Your task to perform on an android device: see tabs open on other devices in the chrome app Image 0: 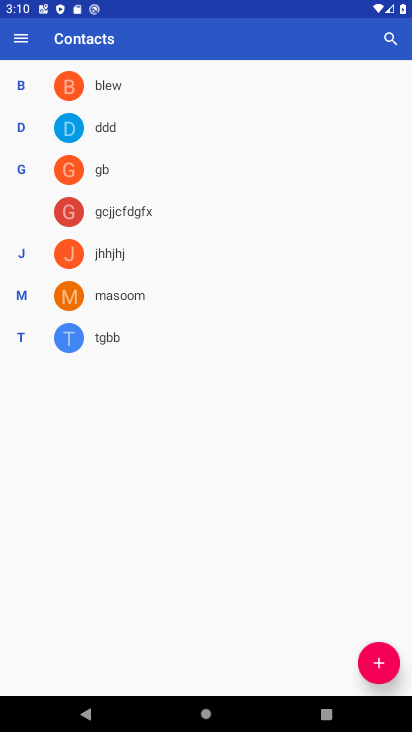
Step 0: press home button
Your task to perform on an android device: see tabs open on other devices in the chrome app Image 1: 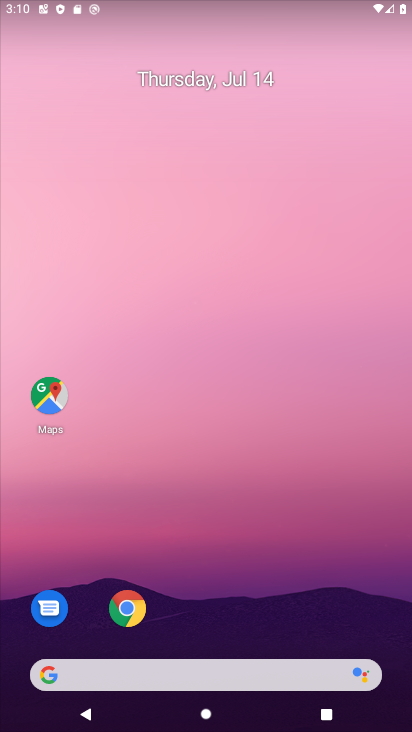
Step 1: click (138, 614)
Your task to perform on an android device: see tabs open on other devices in the chrome app Image 2: 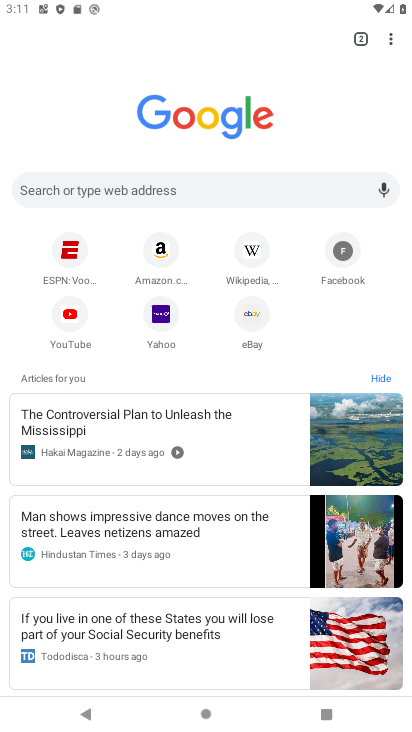
Step 2: click (365, 32)
Your task to perform on an android device: see tabs open on other devices in the chrome app Image 3: 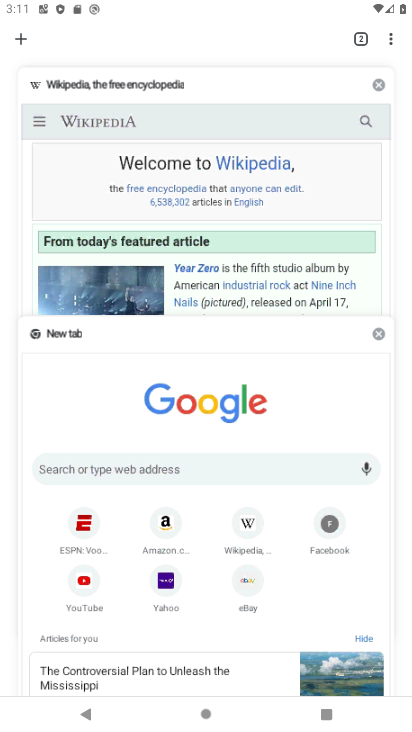
Step 3: task complete